Your task to perform on an android device: toggle airplane mode Image 0: 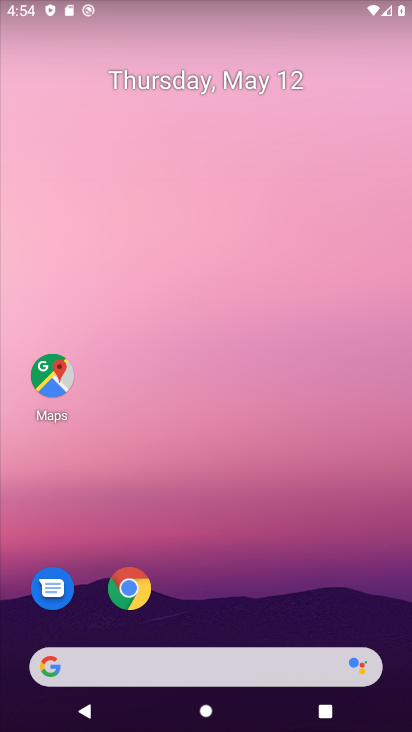
Step 0: drag from (225, 636) to (249, 78)
Your task to perform on an android device: toggle airplane mode Image 1: 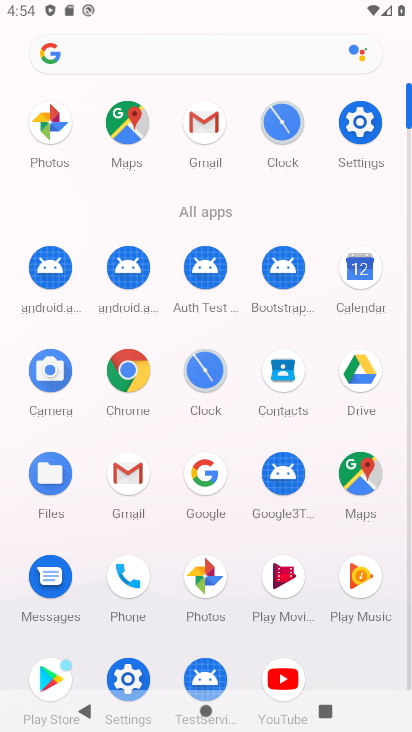
Step 1: click (373, 134)
Your task to perform on an android device: toggle airplane mode Image 2: 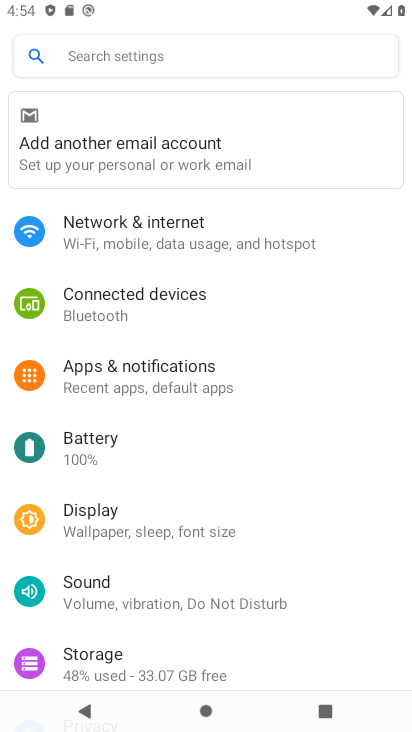
Step 2: click (169, 233)
Your task to perform on an android device: toggle airplane mode Image 3: 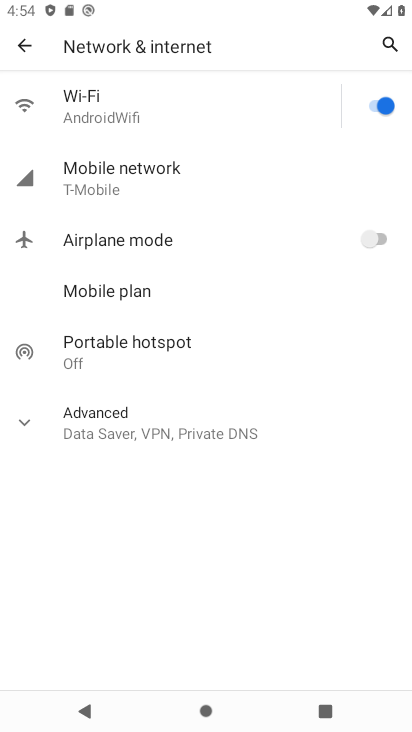
Step 3: click (190, 255)
Your task to perform on an android device: toggle airplane mode Image 4: 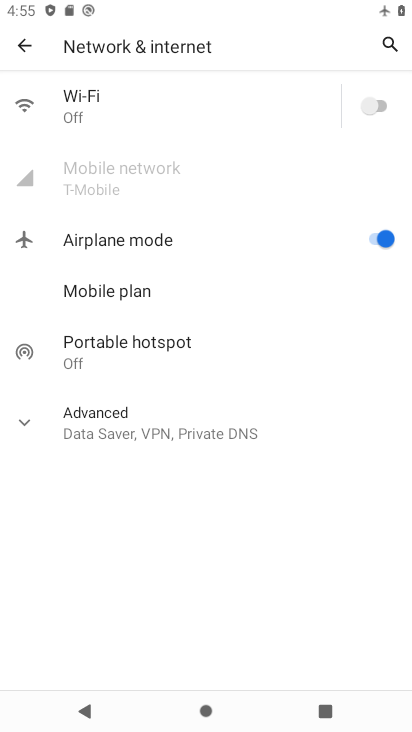
Step 4: task complete